Your task to perform on an android device: turn off translation in the chrome app Image 0: 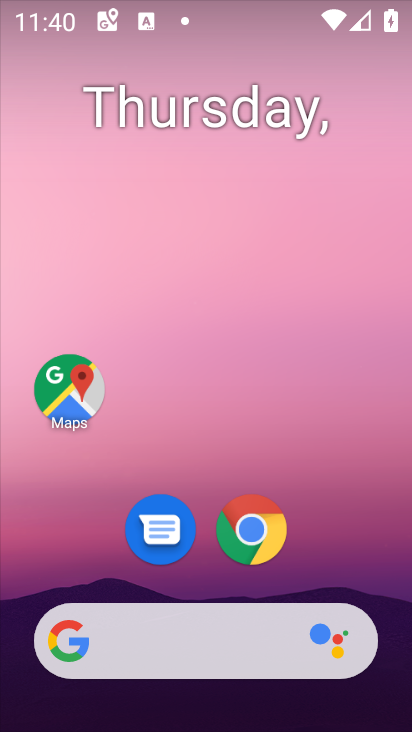
Step 0: drag from (290, 625) to (383, 5)
Your task to perform on an android device: turn off translation in the chrome app Image 1: 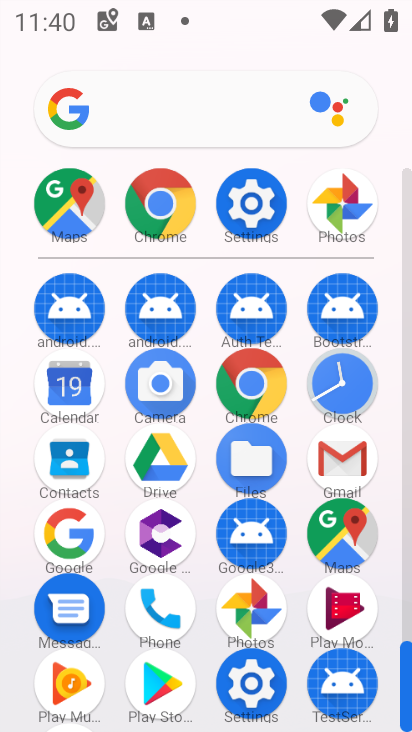
Step 1: click (159, 199)
Your task to perform on an android device: turn off translation in the chrome app Image 2: 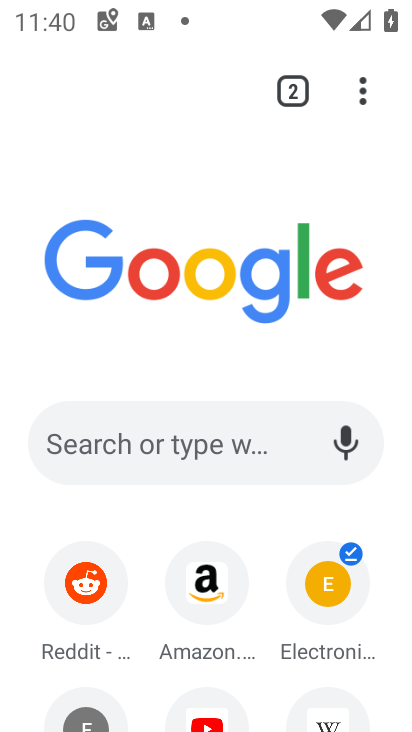
Step 2: click (360, 89)
Your task to perform on an android device: turn off translation in the chrome app Image 3: 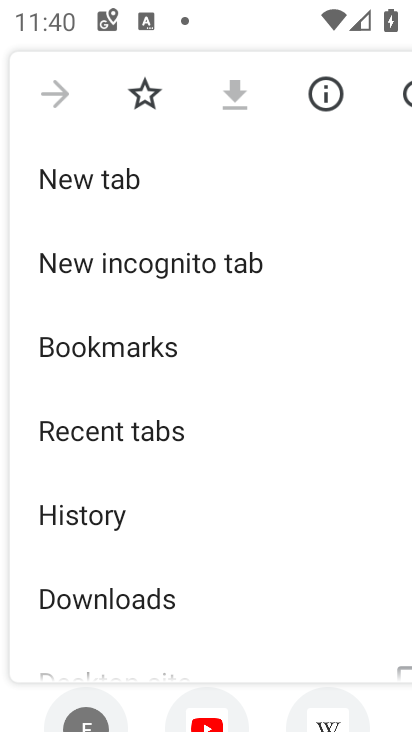
Step 3: task complete